Your task to perform on an android device: Open my contact list Image 0: 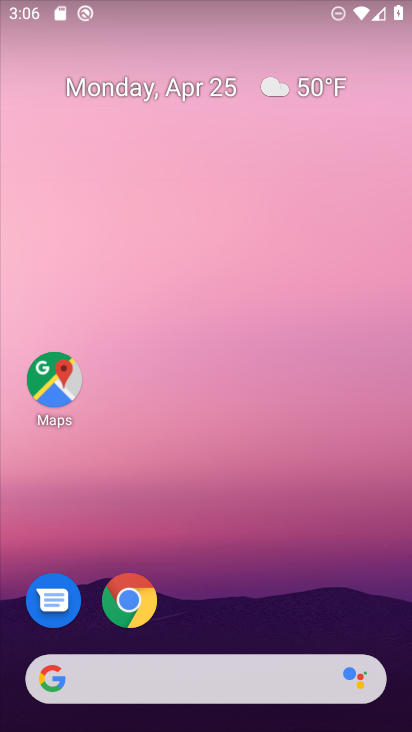
Step 0: drag from (199, 592) to (176, 56)
Your task to perform on an android device: Open my contact list Image 1: 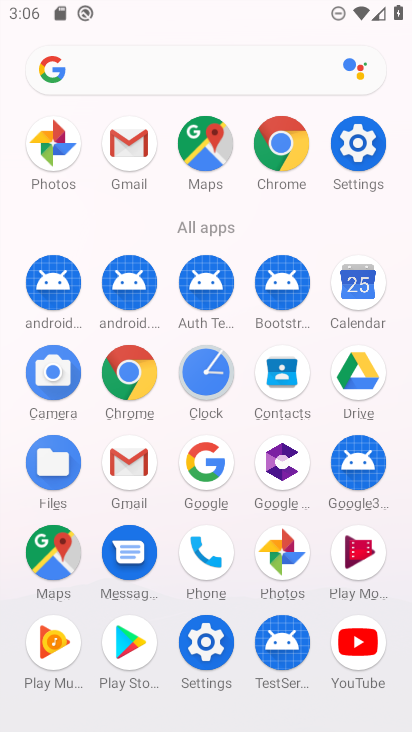
Step 1: click (187, 559)
Your task to perform on an android device: Open my contact list Image 2: 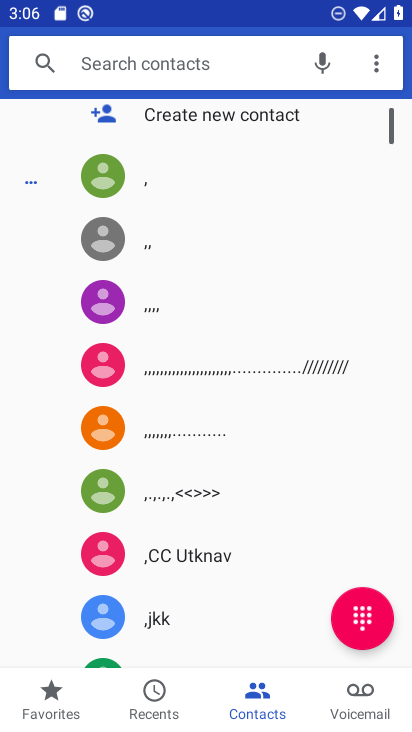
Step 2: click (232, 125)
Your task to perform on an android device: Open my contact list Image 3: 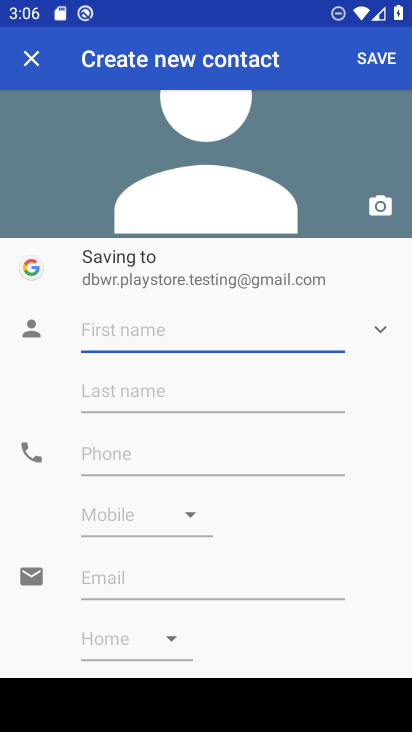
Step 3: type "ji"
Your task to perform on an android device: Open my contact list Image 4: 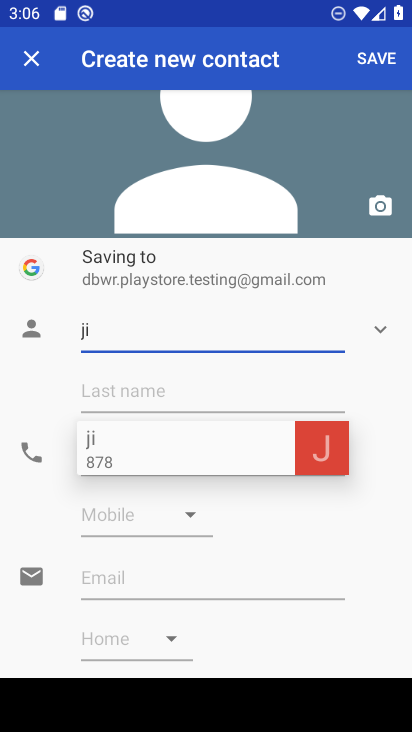
Step 4: click (183, 440)
Your task to perform on an android device: Open my contact list Image 5: 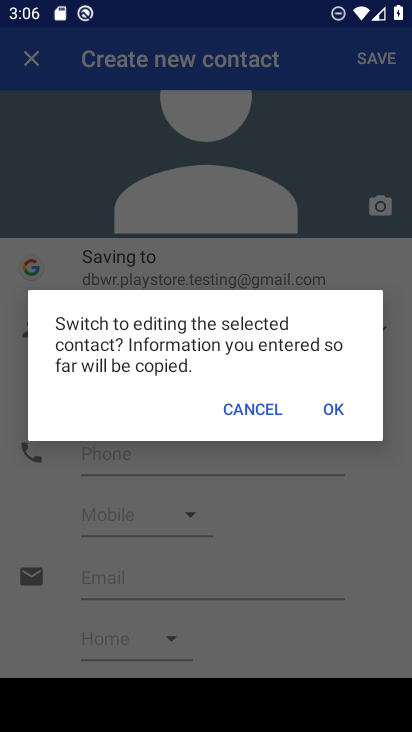
Step 5: click (344, 414)
Your task to perform on an android device: Open my contact list Image 6: 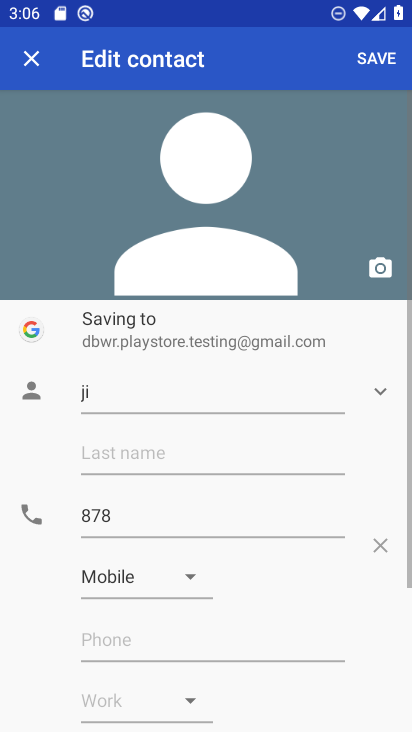
Step 6: click (377, 67)
Your task to perform on an android device: Open my contact list Image 7: 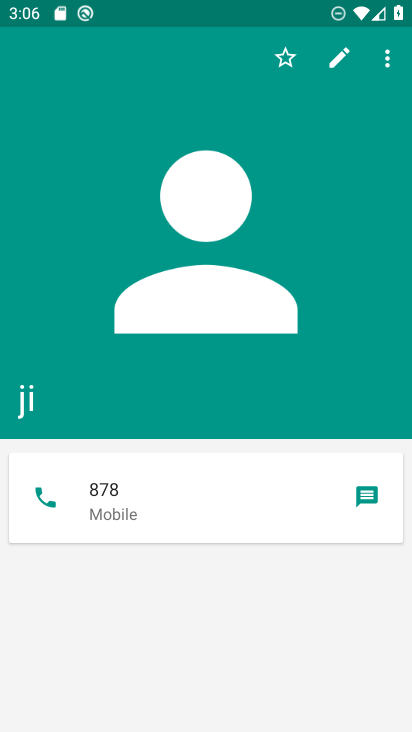
Step 7: task complete